Your task to perform on an android device: turn pop-ups off in chrome Image 0: 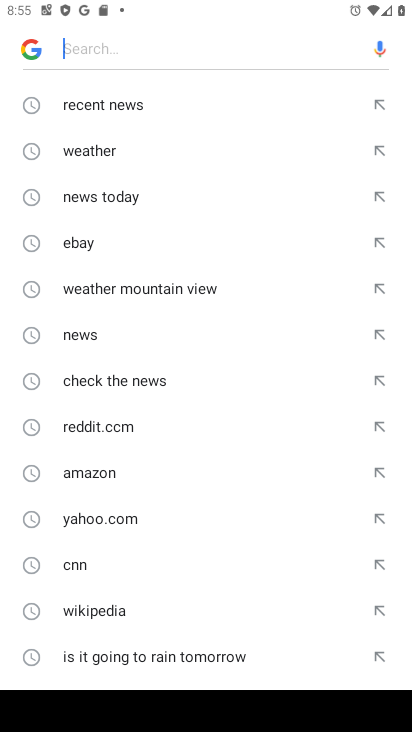
Step 0: press home button
Your task to perform on an android device: turn pop-ups off in chrome Image 1: 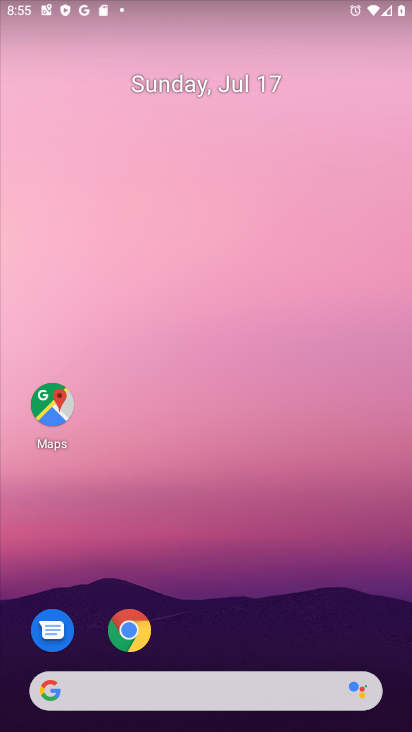
Step 1: click (136, 630)
Your task to perform on an android device: turn pop-ups off in chrome Image 2: 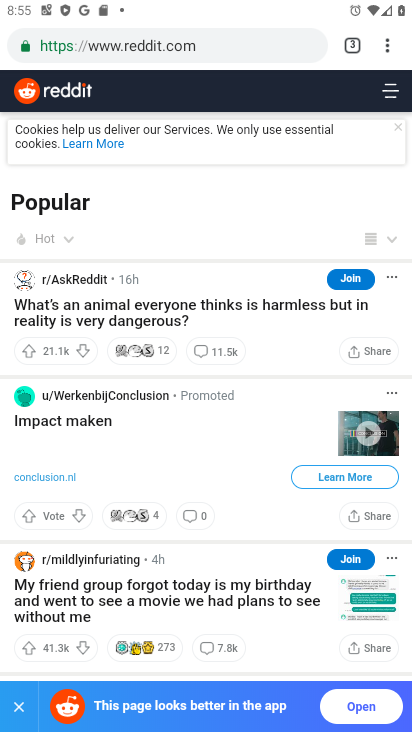
Step 2: click (385, 42)
Your task to perform on an android device: turn pop-ups off in chrome Image 3: 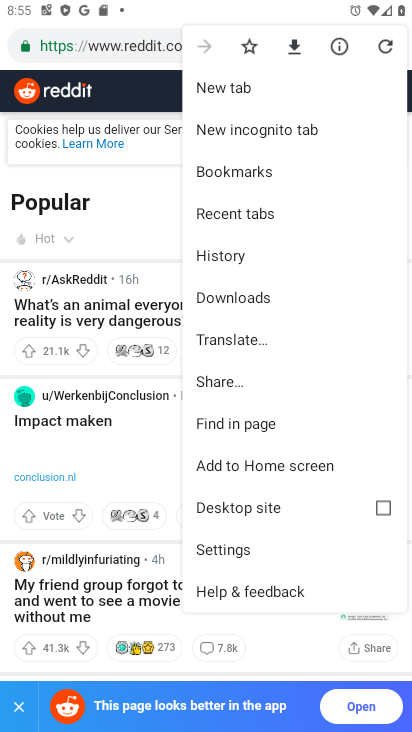
Step 3: click (237, 548)
Your task to perform on an android device: turn pop-ups off in chrome Image 4: 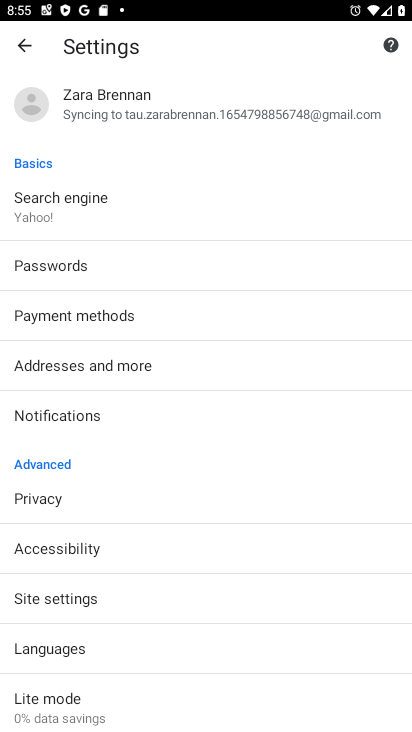
Step 4: click (79, 598)
Your task to perform on an android device: turn pop-ups off in chrome Image 5: 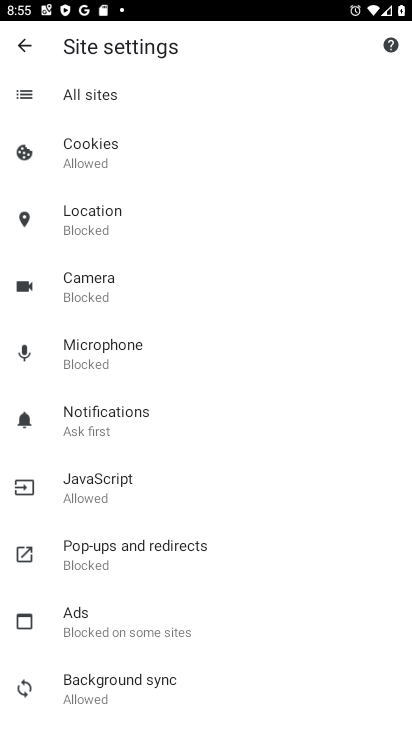
Step 5: click (120, 551)
Your task to perform on an android device: turn pop-ups off in chrome Image 6: 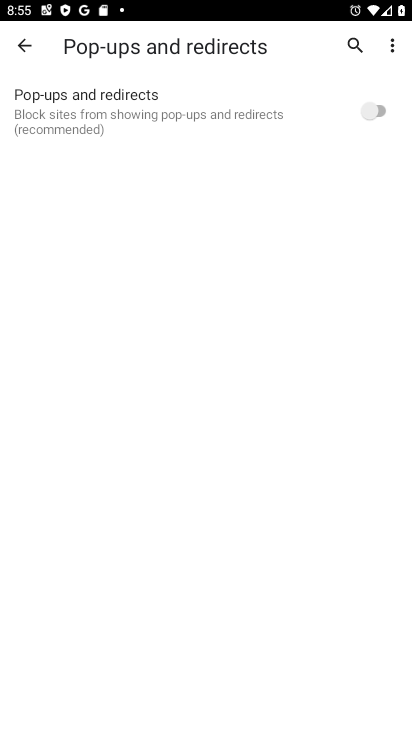
Step 6: task complete